Your task to perform on an android device: manage bookmarks in the chrome app Image 0: 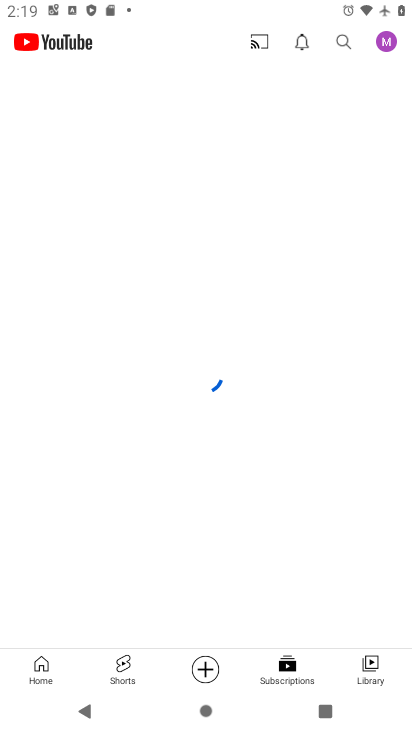
Step 0: drag from (242, 511) to (161, 50)
Your task to perform on an android device: manage bookmarks in the chrome app Image 1: 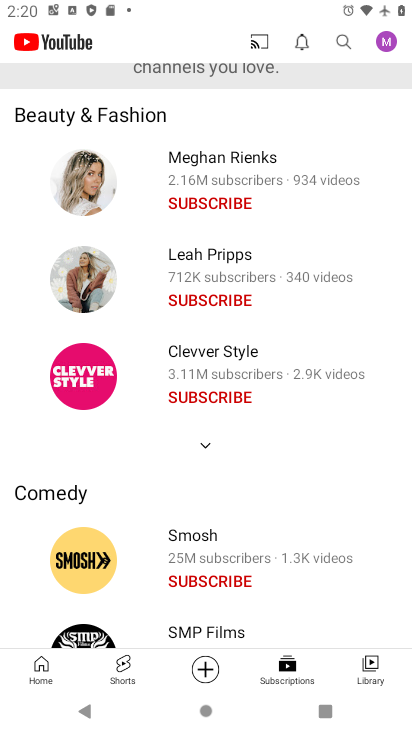
Step 1: press home button
Your task to perform on an android device: manage bookmarks in the chrome app Image 2: 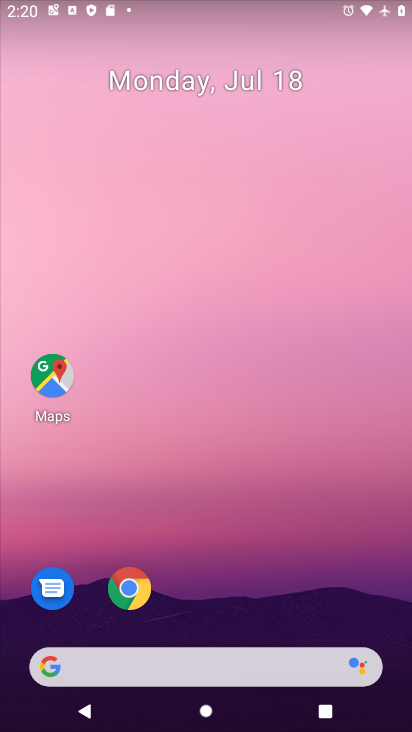
Step 2: click (135, 592)
Your task to perform on an android device: manage bookmarks in the chrome app Image 3: 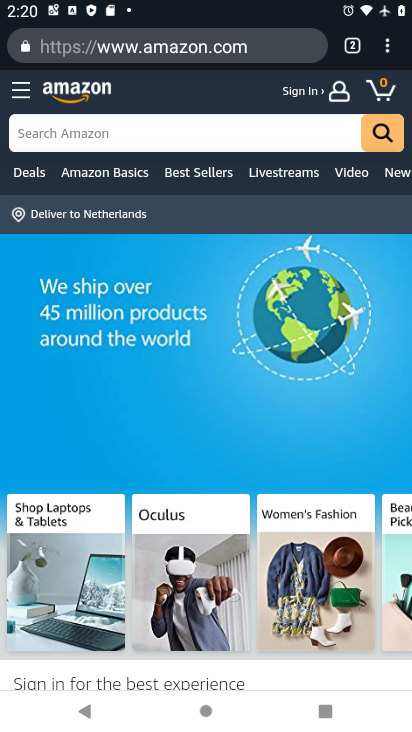
Step 3: click (400, 42)
Your task to perform on an android device: manage bookmarks in the chrome app Image 4: 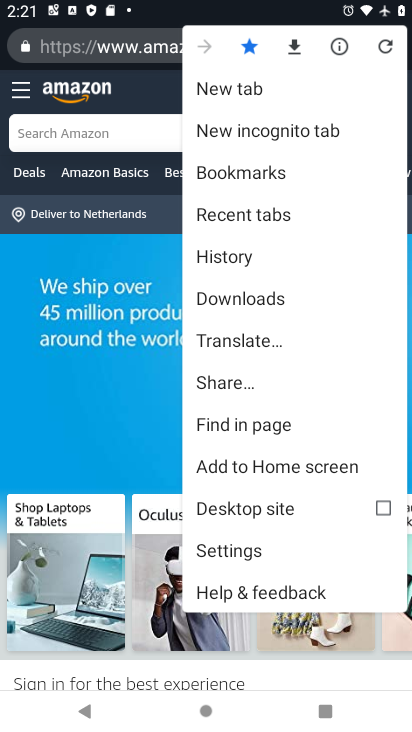
Step 4: click (245, 171)
Your task to perform on an android device: manage bookmarks in the chrome app Image 5: 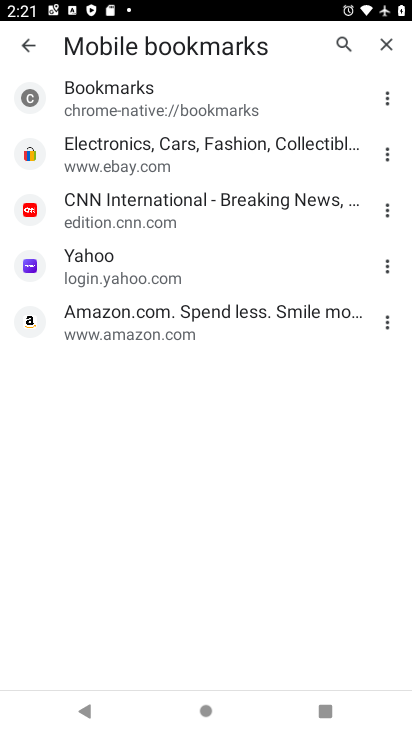
Step 5: task complete